Your task to perform on an android device: empty trash in google photos Image 0: 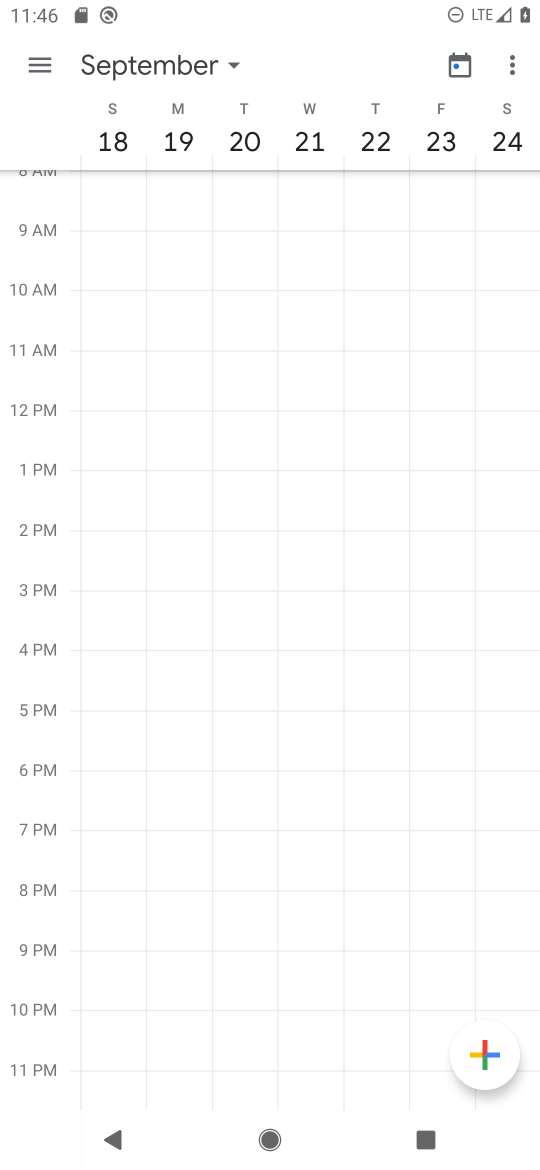
Step 0: press home button
Your task to perform on an android device: empty trash in google photos Image 1: 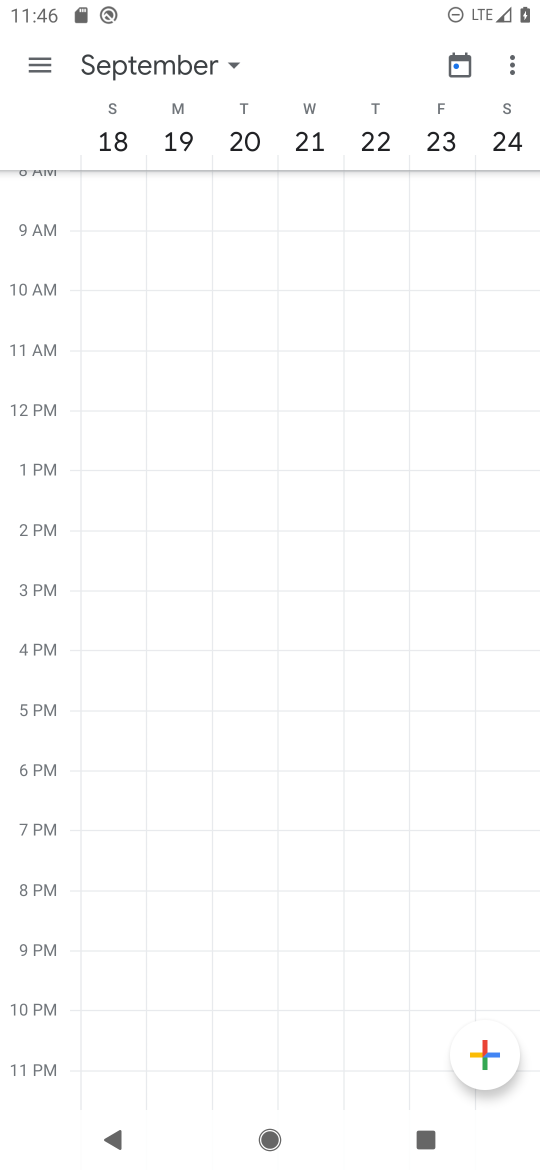
Step 1: press home button
Your task to perform on an android device: empty trash in google photos Image 2: 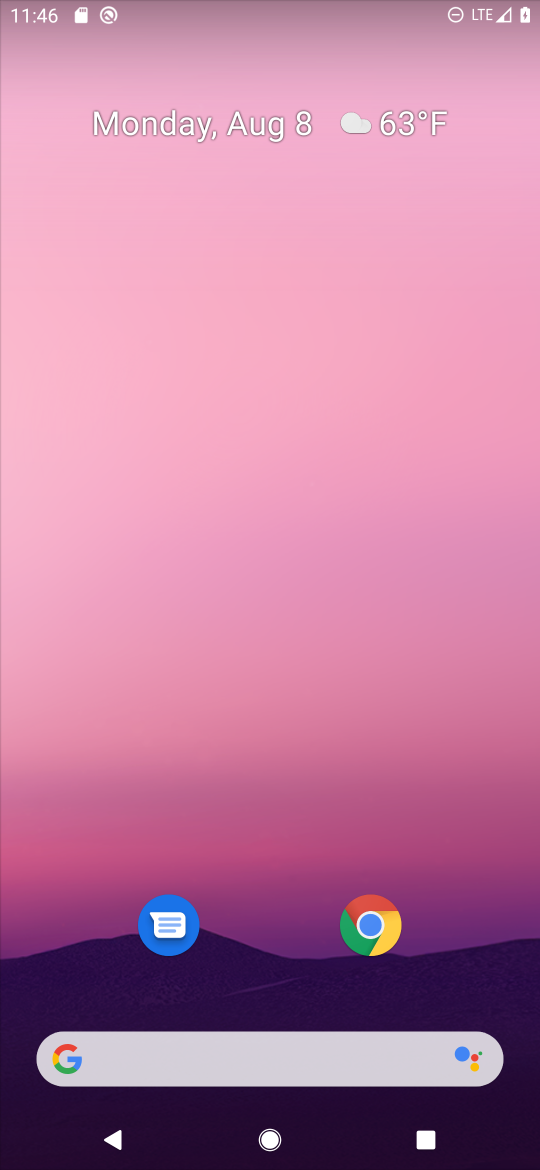
Step 2: drag from (251, 927) to (304, 160)
Your task to perform on an android device: empty trash in google photos Image 3: 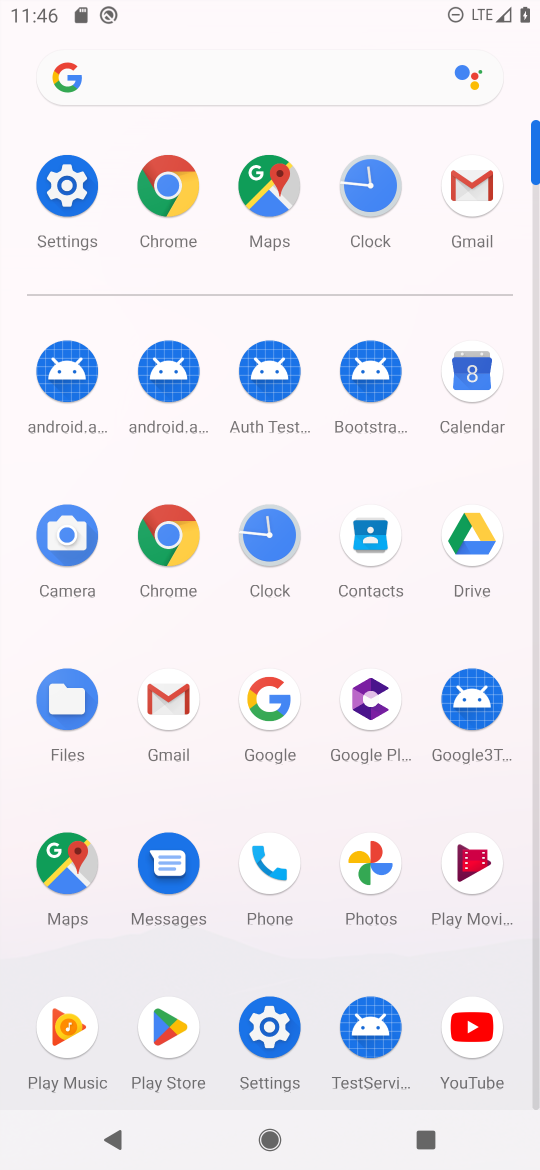
Step 3: click (371, 852)
Your task to perform on an android device: empty trash in google photos Image 4: 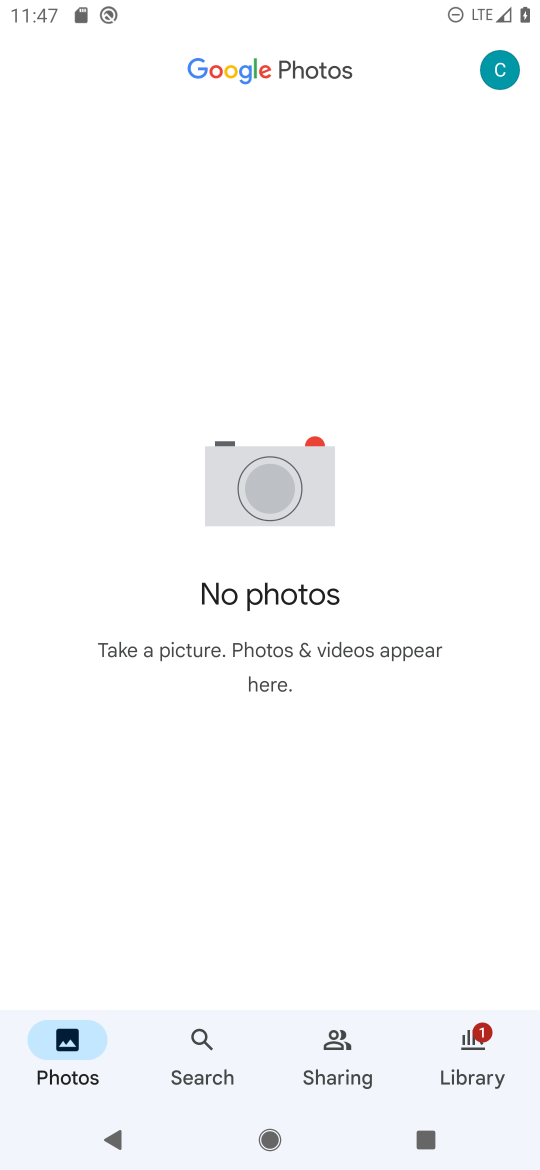
Step 4: click (475, 1046)
Your task to perform on an android device: empty trash in google photos Image 5: 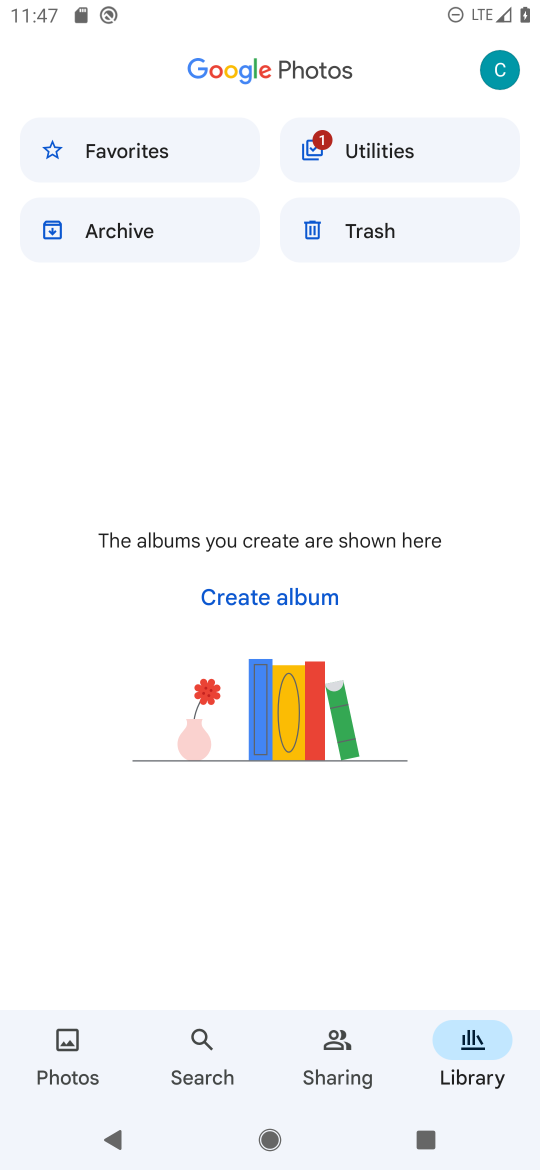
Step 5: click (381, 232)
Your task to perform on an android device: empty trash in google photos Image 6: 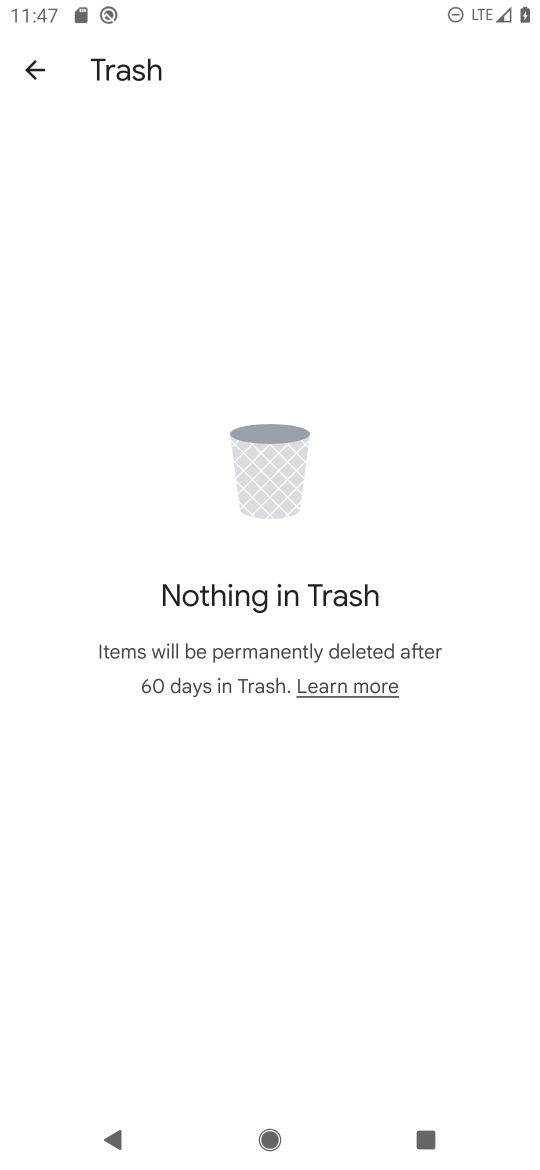
Step 6: task complete